Your task to perform on an android device: Show me popular games on the Play Store Image 0: 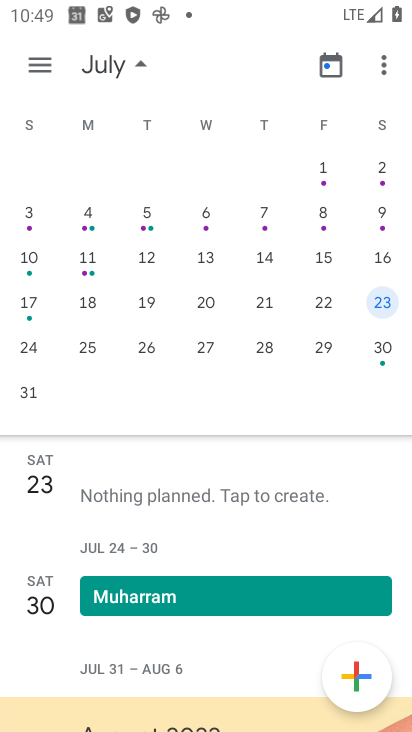
Step 0: press home button
Your task to perform on an android device: Show me popular games on the Play Store Image 1: 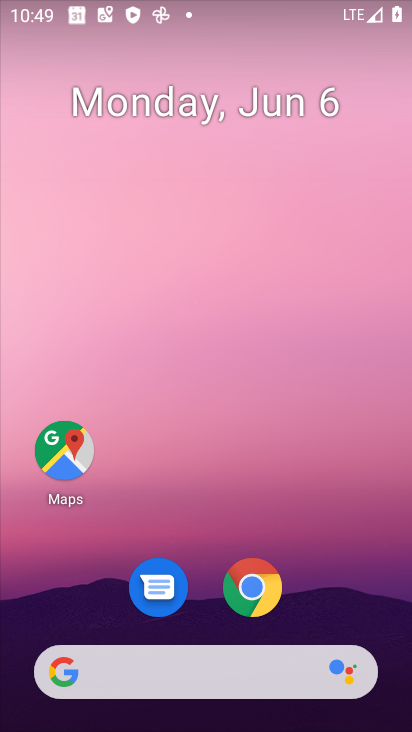
Step 1: drag from (246, 720) to (86, 29)
Your task to perform on an android device: Show me popular games on the Play Store Image 2: 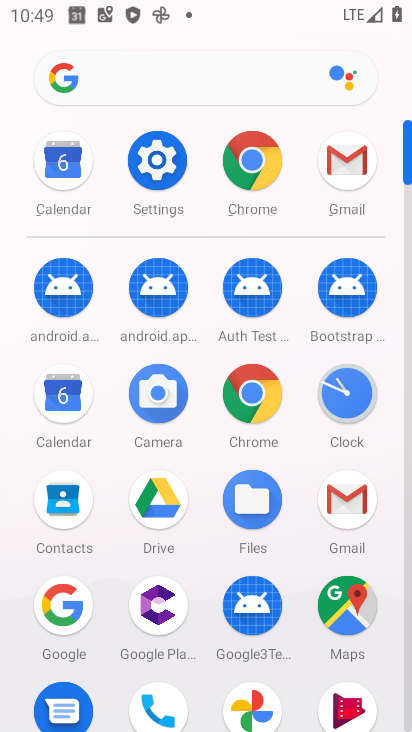
Step 2: drag from (198, 566) to (271, 1)
Your task to perform on an android device: Show me popular games on the Play Store Image 3: 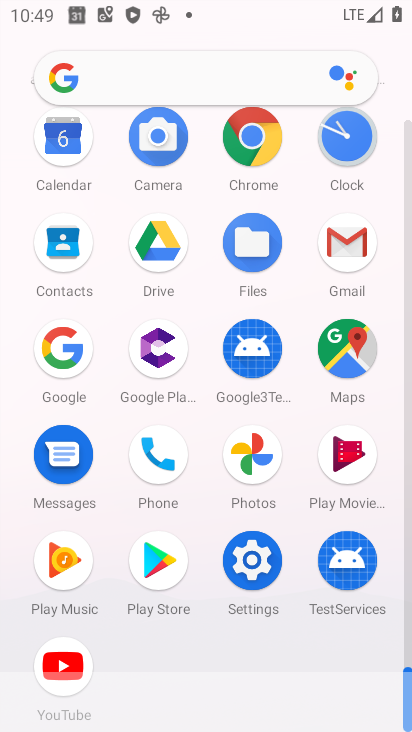
Step 3: click (154, 565)
Your task to perform on an android device: Show me popular games on the Play Store Image 4: 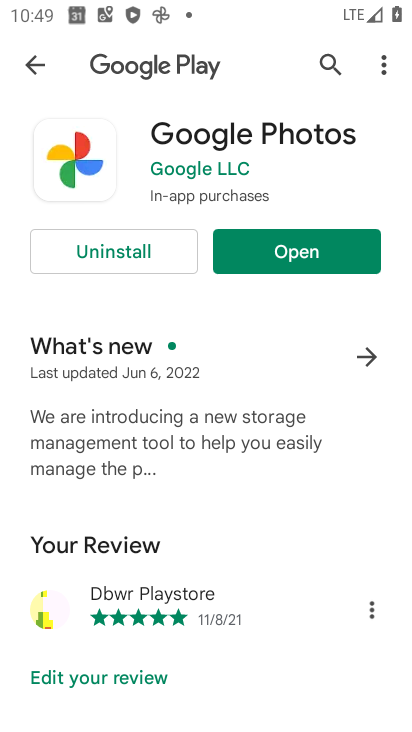
Step 4: click (28, 58)
Your task to perform on an android device: Show me popular games on the Play Store Image 5: 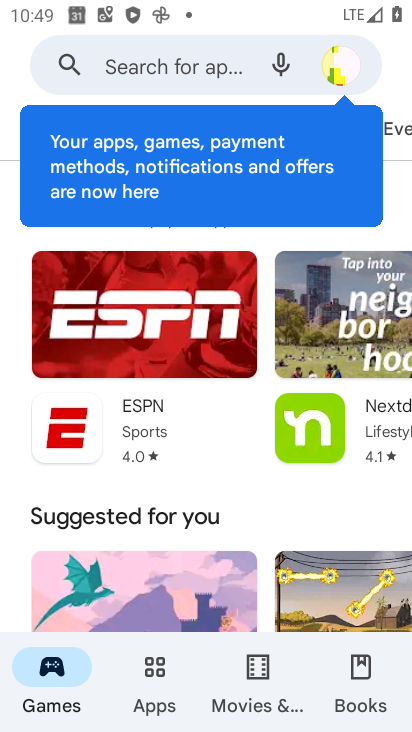
Step 5: task complete